Your task to perform on an android device: Open calendar and show me the first week of next month Image 0: 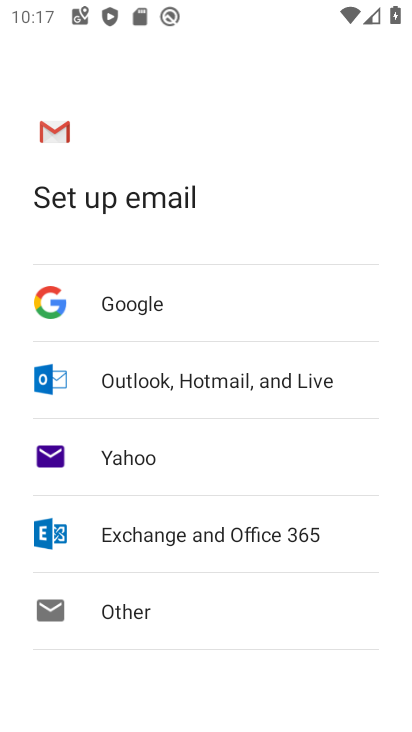
Step 0: press home button
Your task to perform on an android device: Open calendar and show me the first week of next month Image 1: 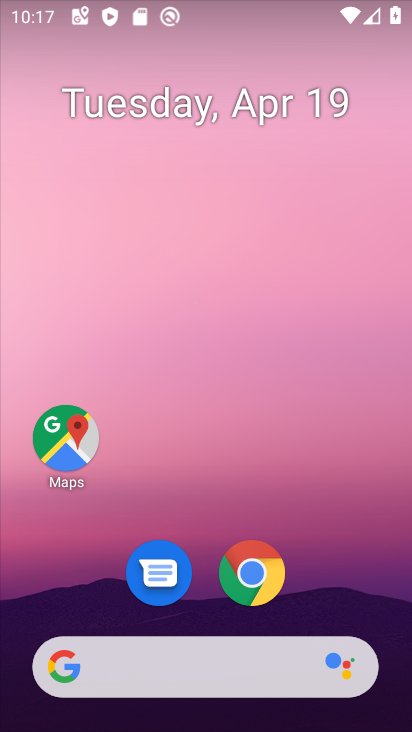
Step 1: drag from (328, 589) to (278, 60)
Your task to perform on an android device: Open calendar and show me the first week of next month Image 2: 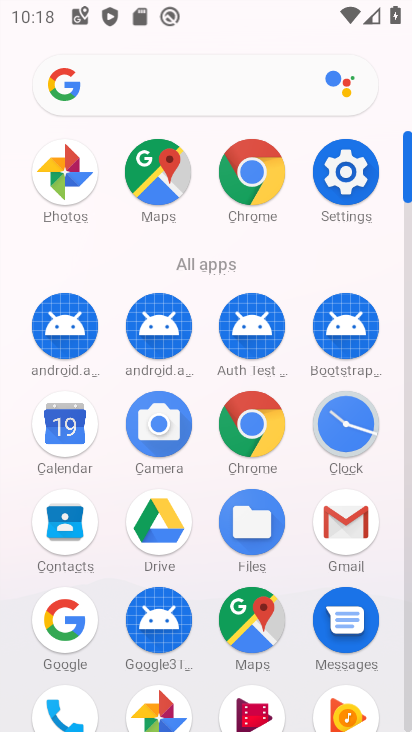
Step 2: click (65, 425)
Your task to perform on an android device: Open calendar and show me the first week of next month Image 3: 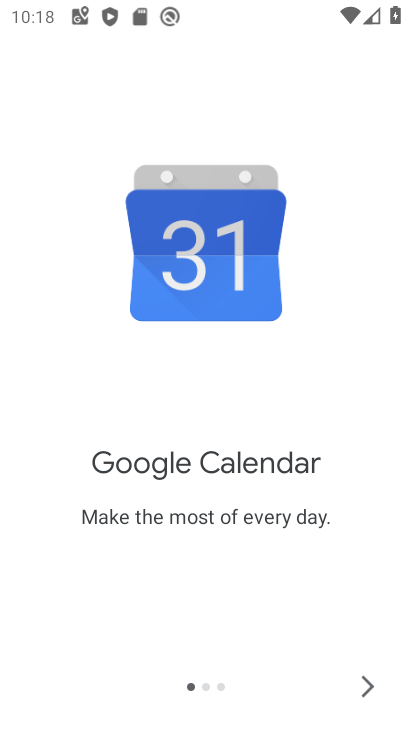
Step 3: click (367, 679)
Your task to perform on an android device: Open calendar and show me the first week of next month Image 4: 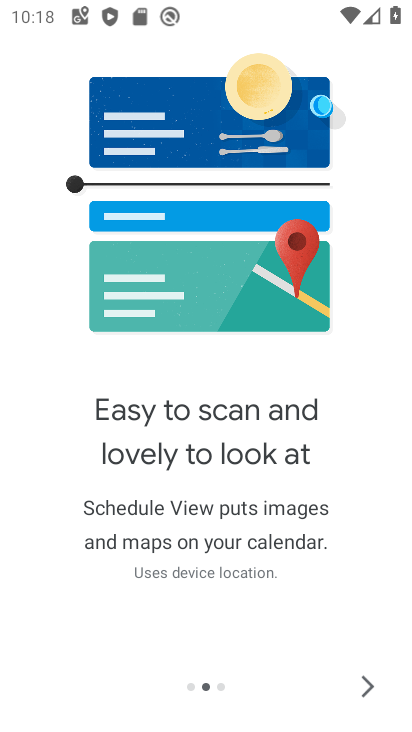
Step 4: click (366, 688)
Your task to perform on an android device: Open calendar and show me the first week of next month Image 5: 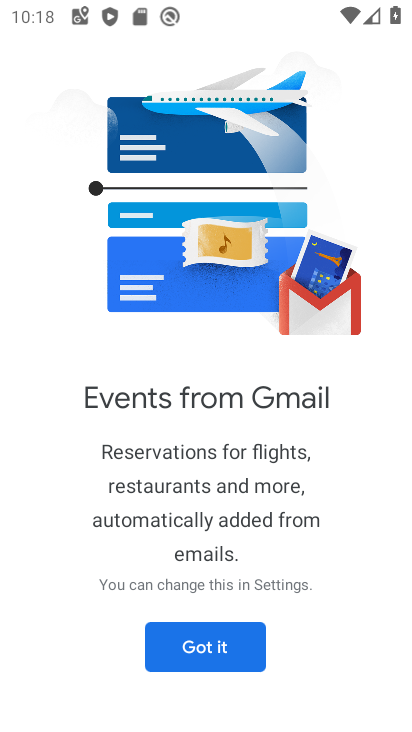
Step 5: click (220, 649)
Your task to perform on an android device: Open calendar and show me the first week of next month Image 6: 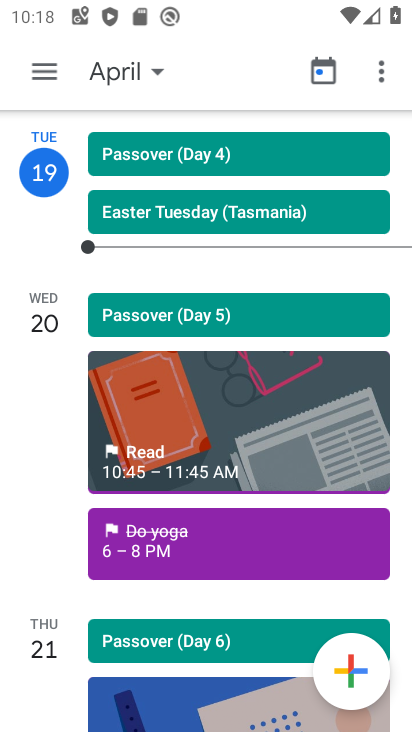
Step 6: click (155, 75)
Your task to perform on an android device: Open calendar and show me the first week of next month Image 7: 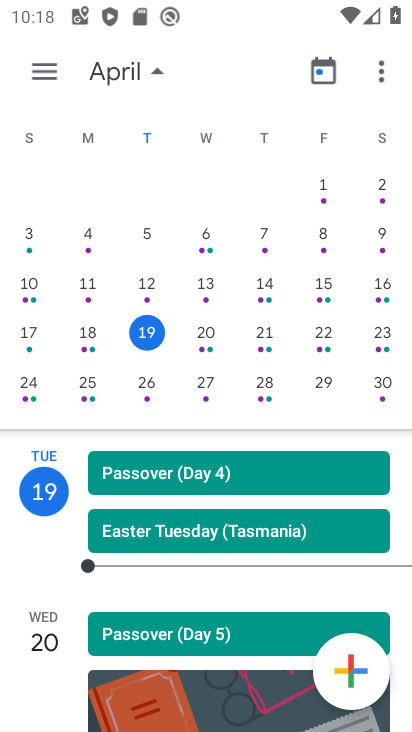
Step 7: drag from (387, 337) to (27, 338)
Your task to perform on an android device: Open calendar and show me the first week of next month Image 8: 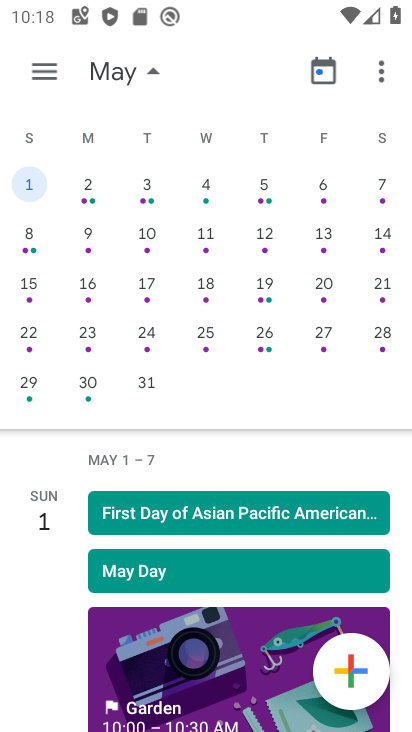
Step 8: click (44, 70)
Your task to perform on an android device: Open calendar and show me the first week of next month Image 9: 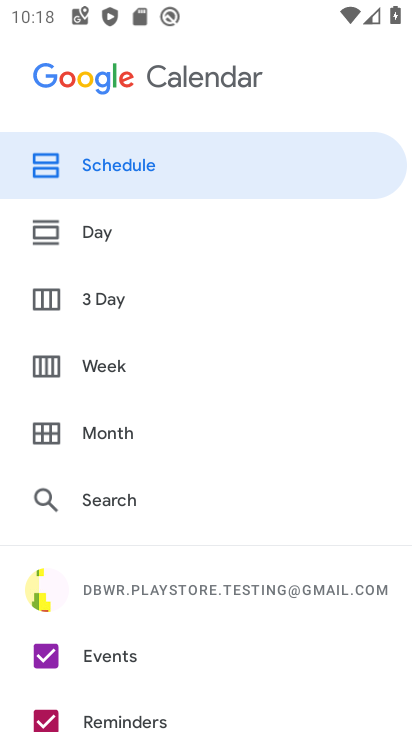
Step 9: click (88, 366)
Your task to perform on an android device: Open calendar and show me the first week of next month Image 10: 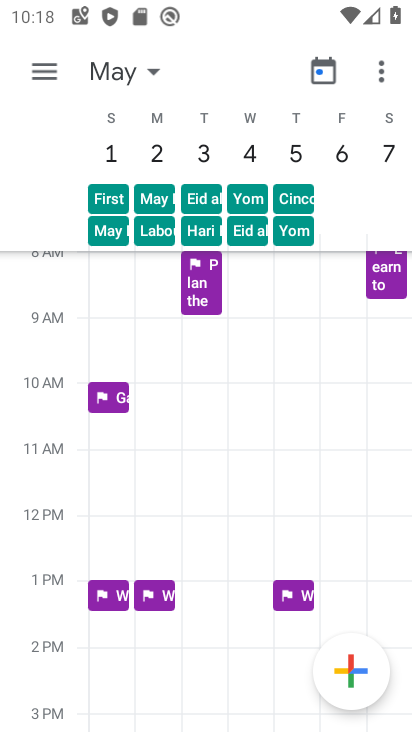
Step 10: task complete